Your task to perform on an android device: install app "Facebook Lite" Image 0: 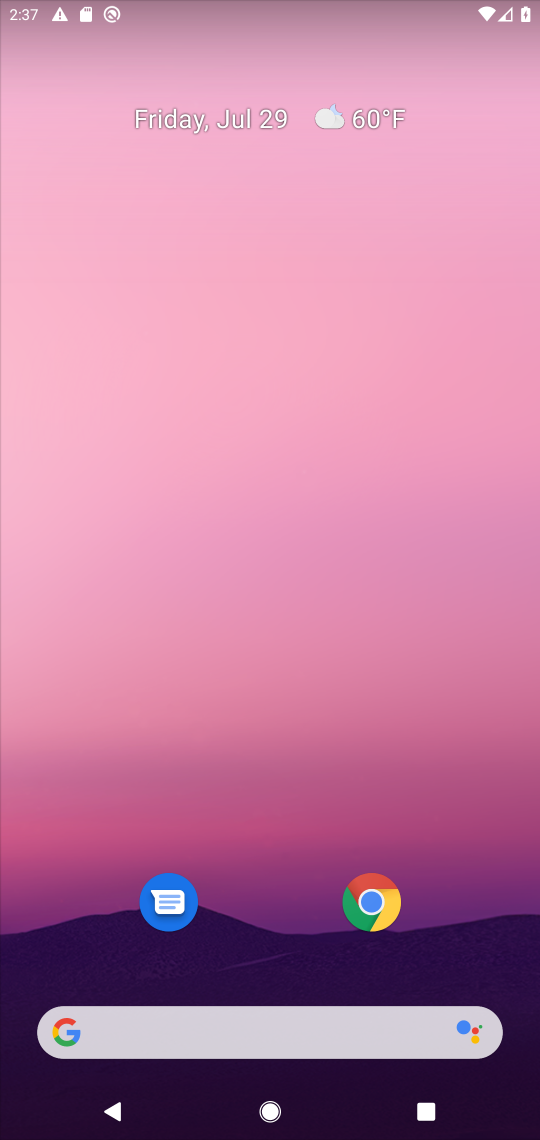
Step 0: drag from (278, 1007) to (381, 54)
Your task to perform on an android device: install app "Facebook Lite" Image 1: 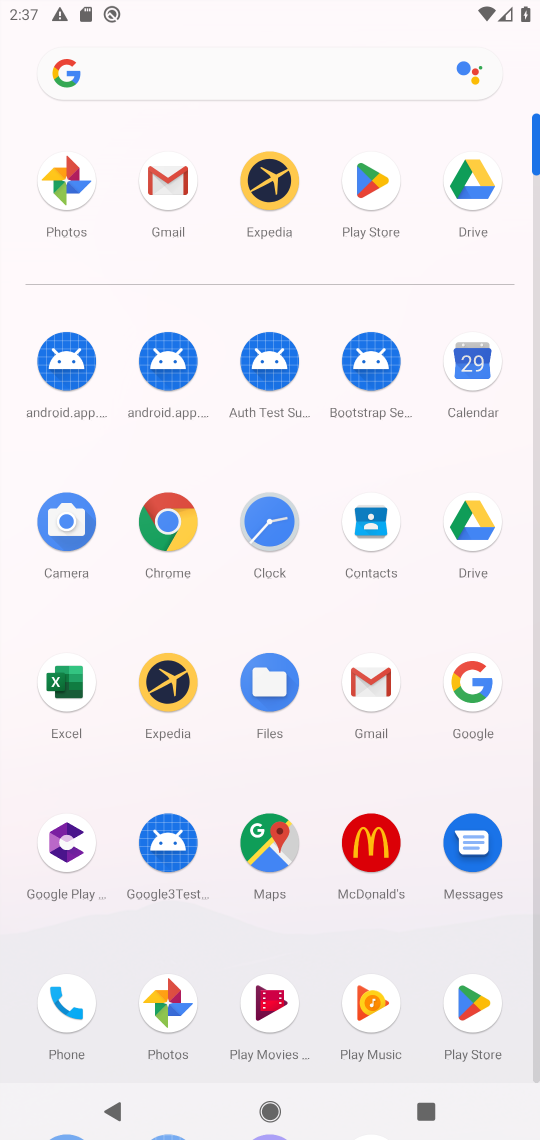
Step 1: click (366, 191)
Your task to perform on an android device: install app "Facebook Lite" Image 2: 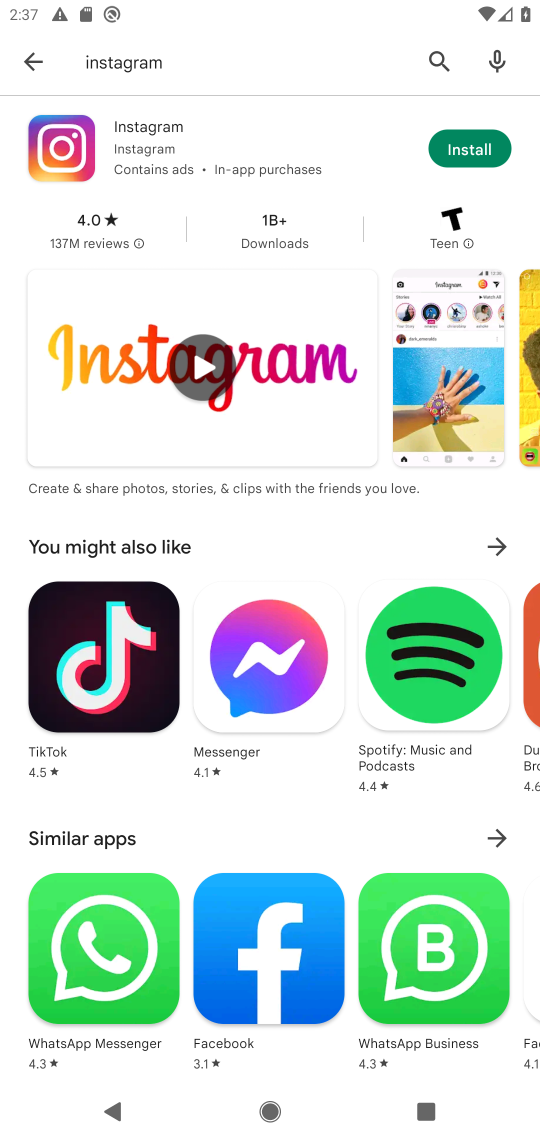
Step 2: click (34, 63)
Your task to perform on an android device: install app "Facebook Lite" Image 3: 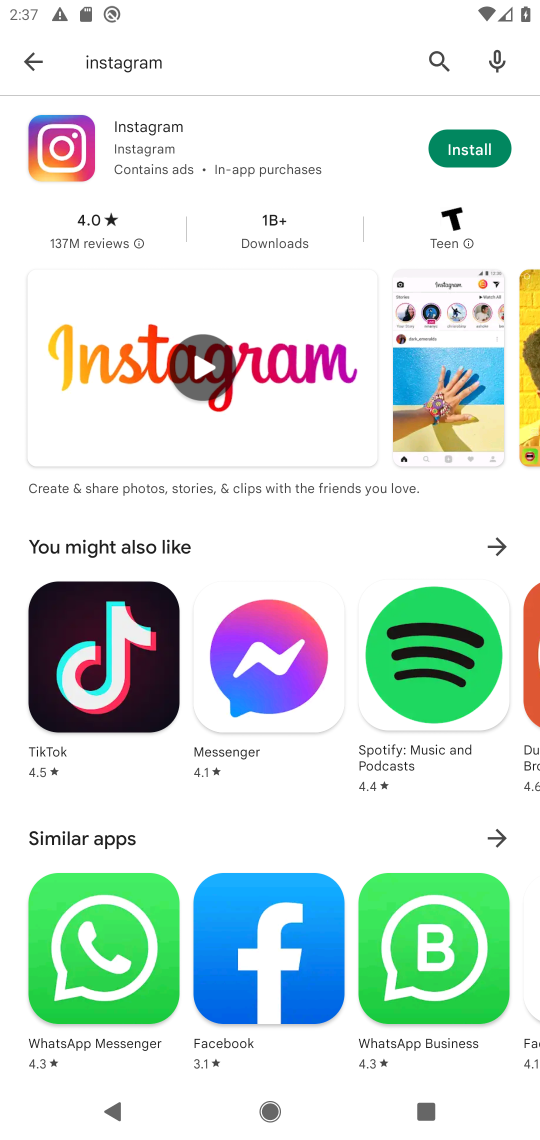
Step 3: click (442, 54)
Your task to perform on an android device: install app "Facebook Lite" Image 4: 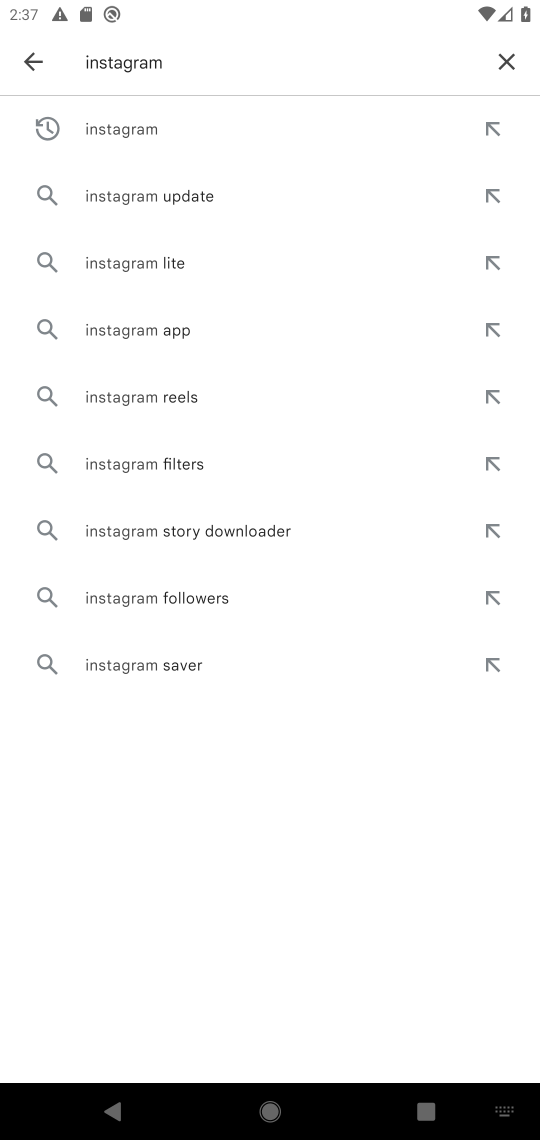
Step 4: click (510, 54)
Your task to perform on an android device: install app "Facebook Lite" Image 5: 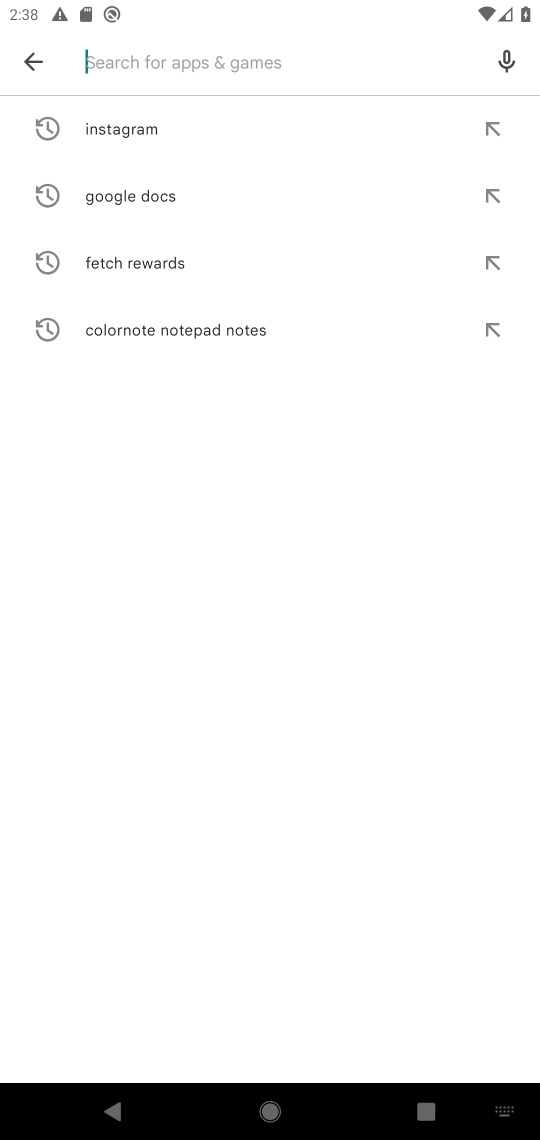
Step 5: type "Facebook Lite"
Your task to perform on an android device: install app "Facebook Lite" Image 6: 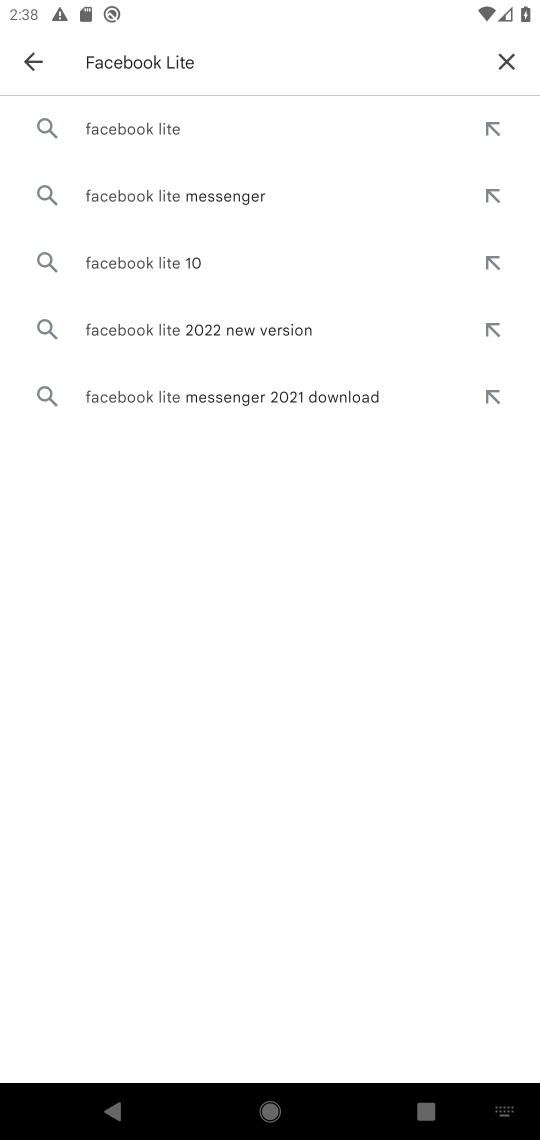
Step 6: click (135, 124)
Your task to perform on an android device: install app "Facebook Lite" Image 7: 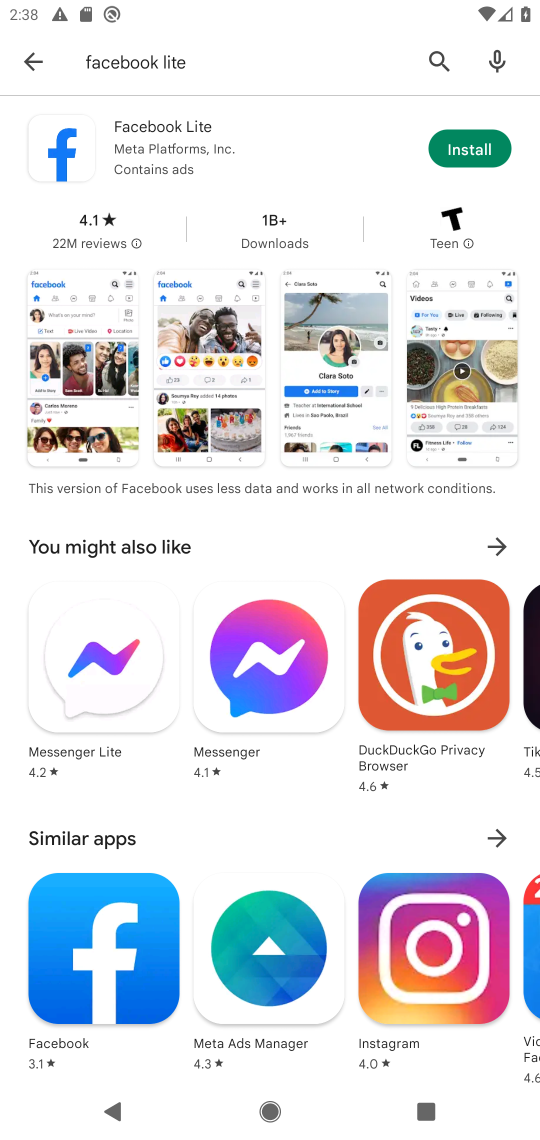
Step 7: click (459, 148)
Your task to perform on an android device: install app "Facebook Lite" Image 8: 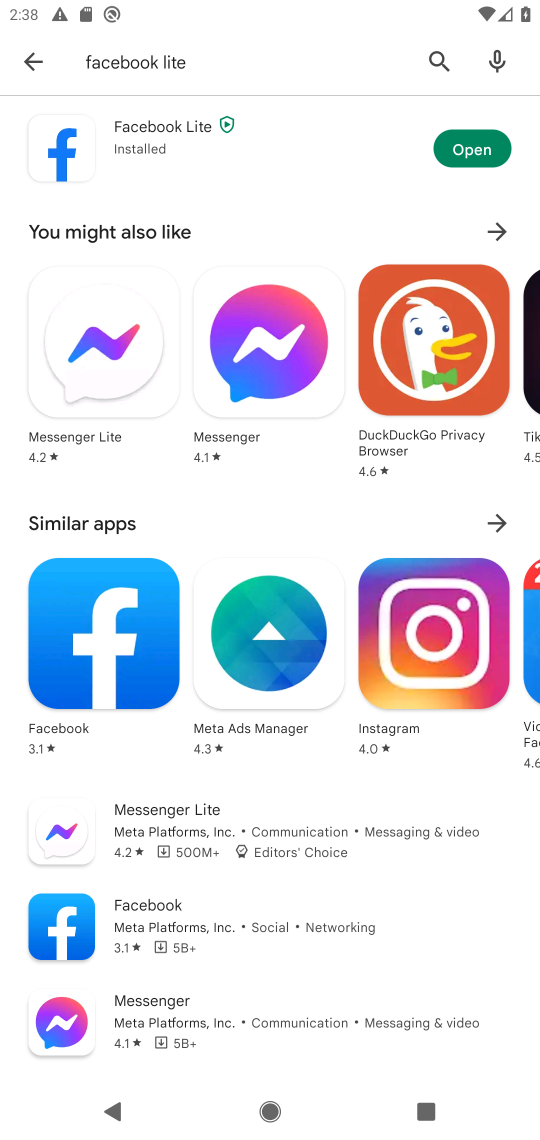
Step 8: click (487, 145)
Your task to perform on an android device: install app "Facebook Lite" Image 9: 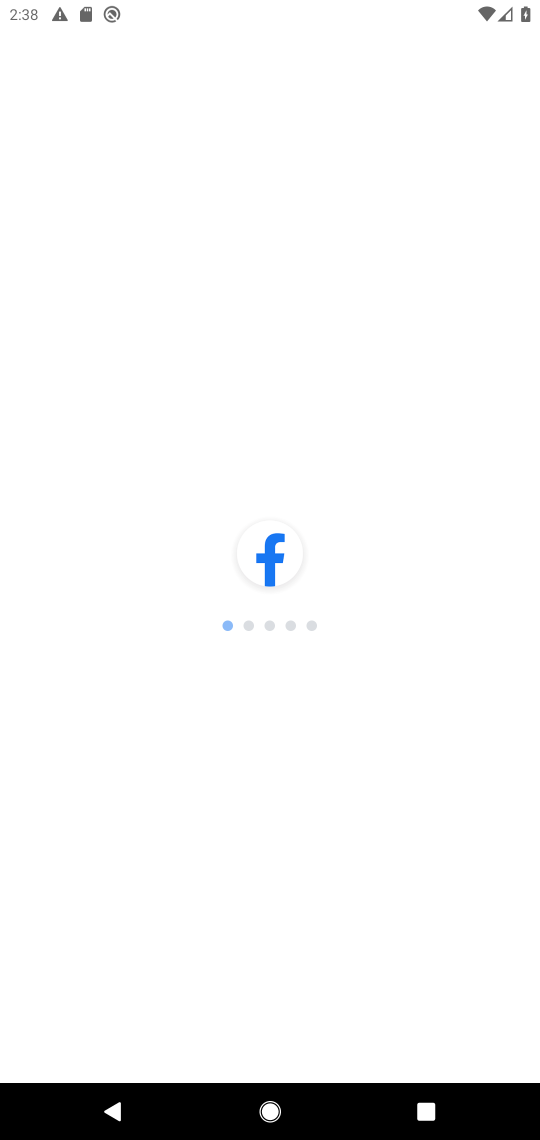
Step 9: task complete